Your task to perform on an android device: Go to Android settings Image 0: 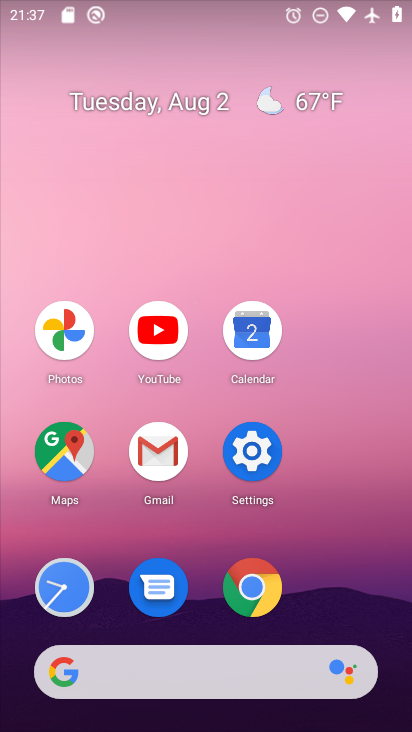
Step 0: click (253, 449)
Your task to perform on an android device: Go to Android settings Image 1: 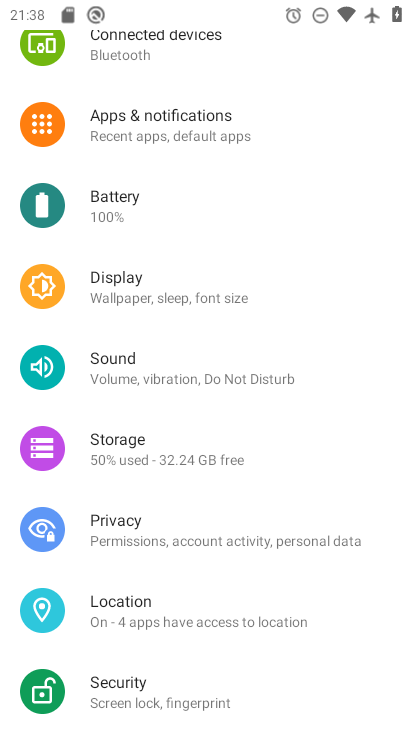
Step 1: drag from (251, 200) to (287, 608)
Your task to perform on an android device: Go to Android settings Image 2: 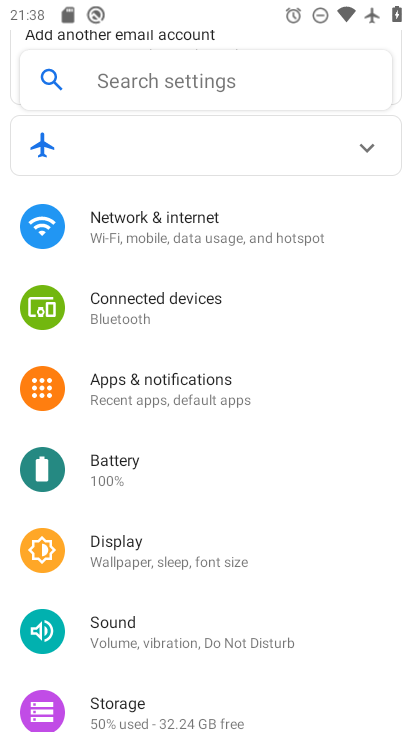
Step 2: drag from (257, 576) to (240, 319)
Your task to perform on an android device: Go to Android settings Image 3: 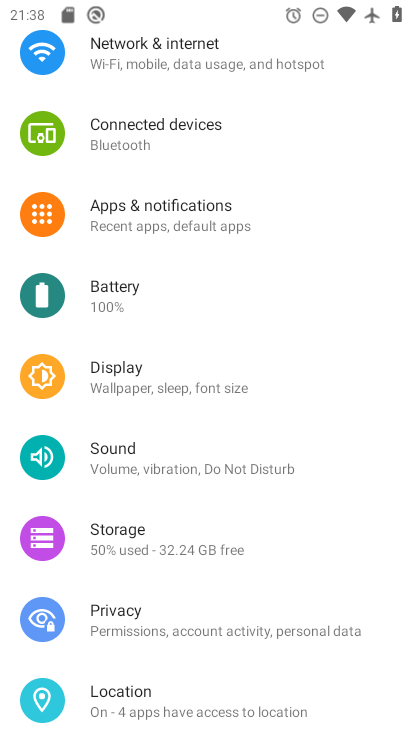
Step 3: drag from (246, 581) to (235, 224)
Your task to perform on an android device: Go to Android settings Image 4: 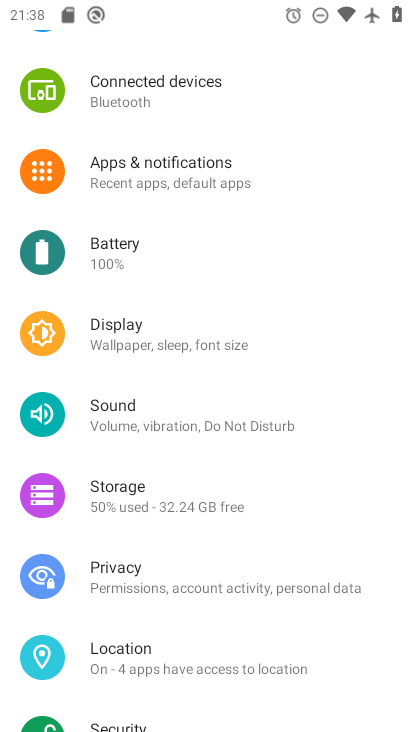
Step 4: drag from (229, 549) to (234, 165)
Your task to perform on an android device: Go to Android settings Image 5: 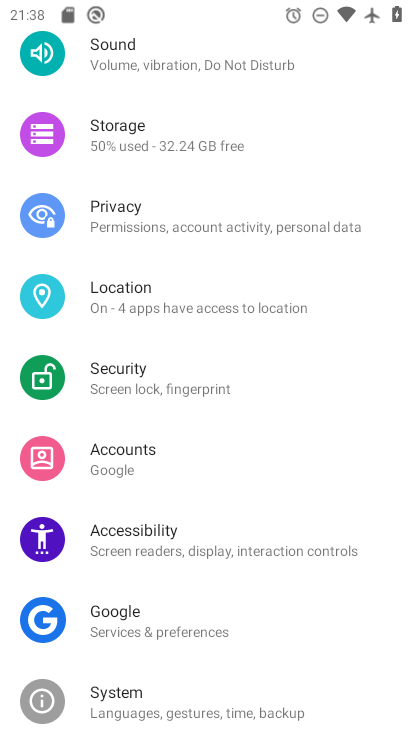
Step 5: drag from (206, 612) to (206, 332)
Your task to perform on an android device: Go to Android settings Image 6: 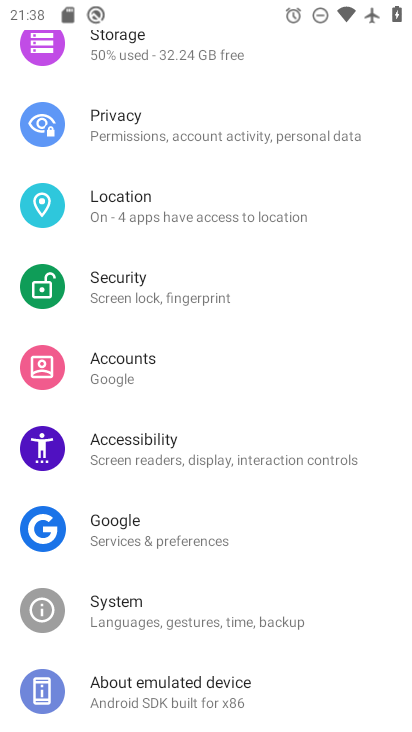
Step 6: click (131, 685)
Your task to perform on an android device: Go to Android settings Image 7: 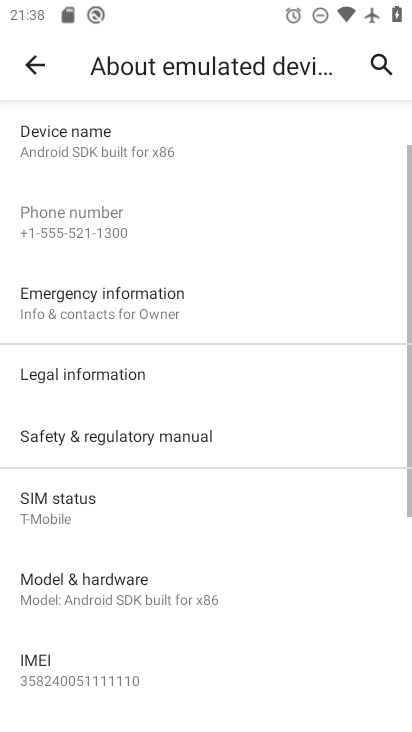
Step 7: drag from (261, 629) to (266, 224)
Your task to perform on an android device: Go to Android settings Image 8: 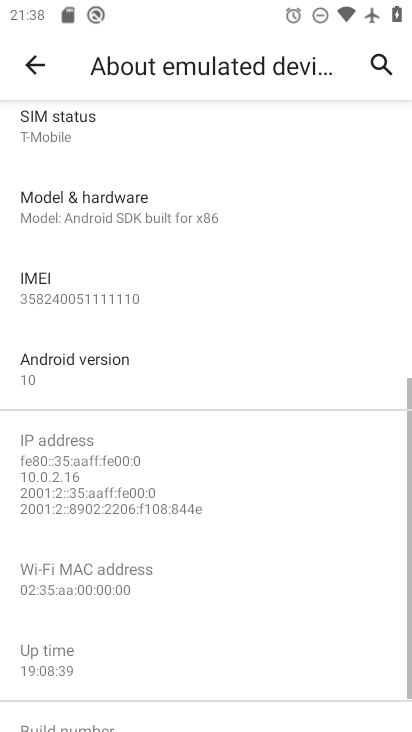
Step 8: click (99, 354)
Your task to perform on an android device: Go to Android settings Image 9: 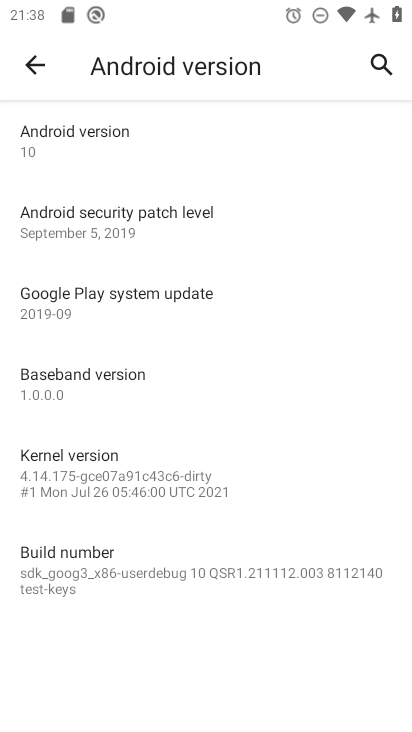
Step 9: task complete